Your task to perform on an android device: Open Chrome and go to the settings page Image 0: 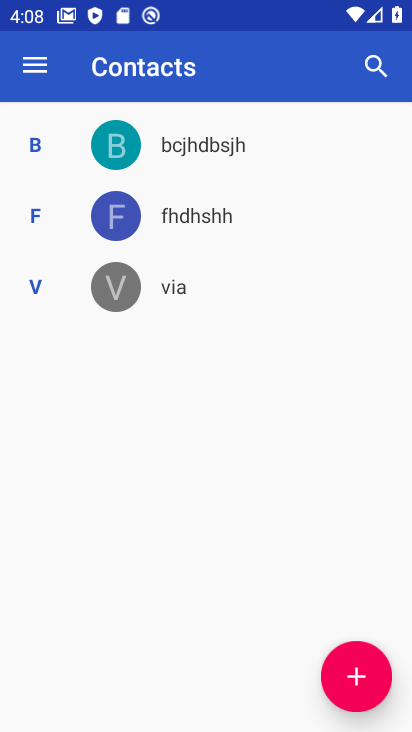
Step 0: press home button
Your task to perform on an android device: Open Chrome and go to the settings page Image 1: 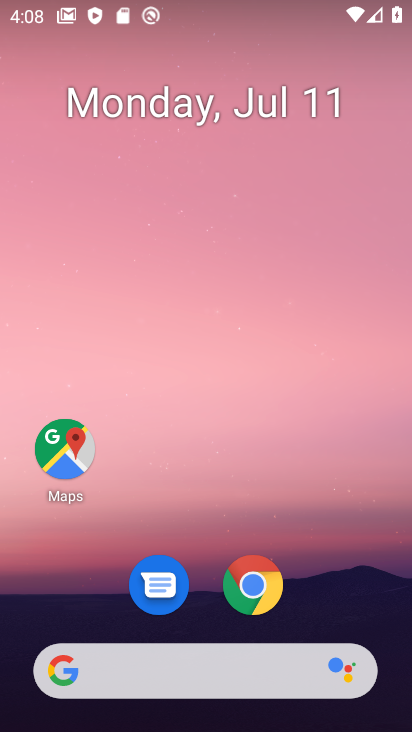
Step 1: click (254, 587)
Your task to perform on an android device: Open Chrome and go to the settings page Image 2: 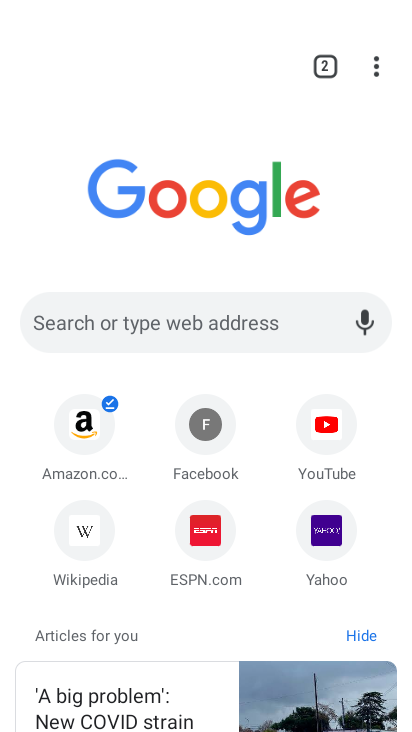
Step 2: click (373, 66)
Your task to perform on an android device: Open Chrome and go to the settings page Image 3: 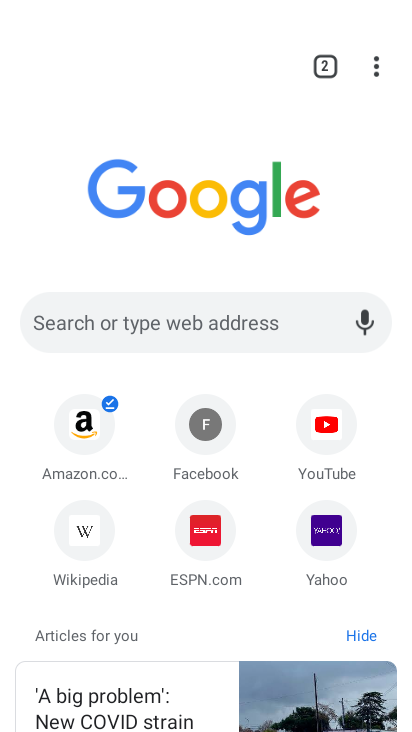
Step 3: click (373, 69)
Your task to perform on an android device: Open Chrome and go to the settings page Image 4: 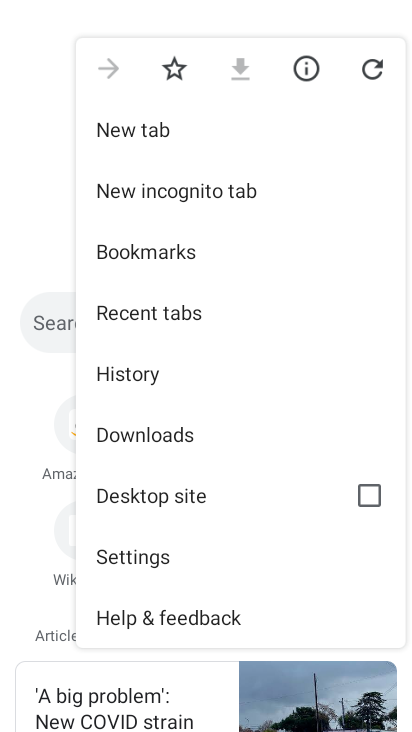
Step 4: click (146, 560)
Your task to perform on an android device: Open Chrome and go to the settings page Image 5: 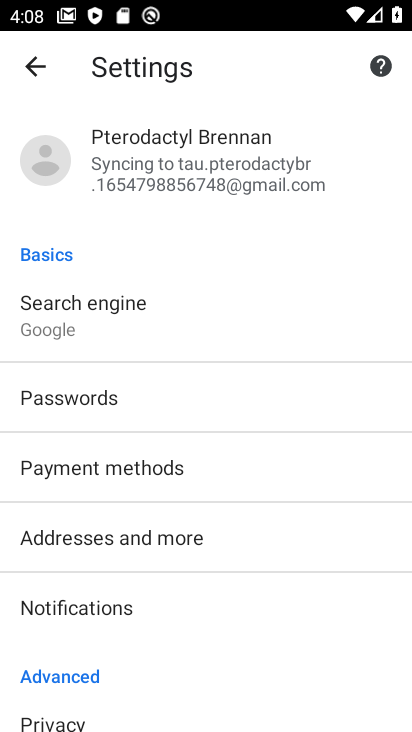
Step 5: task complete